Your task to perform on an android device: choose inbox layout in the gmail app Image 0: 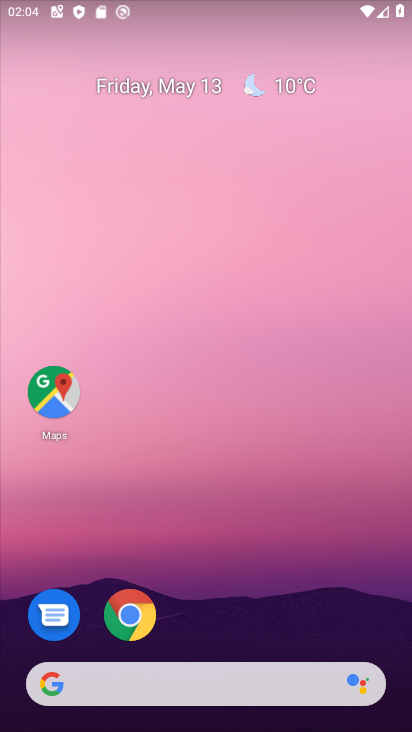
Step 0: drag from (197, 613) to (78, 69)
Your task to perform on an android device: choose inbox layout in the gmail app Image 1: 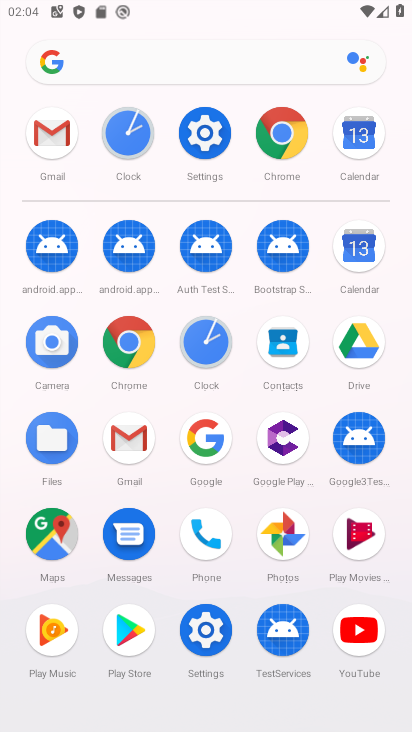
Step 1: click (53, 157)
Your task to perform on an android device: choose inbox layout in the gmail app Image 2: 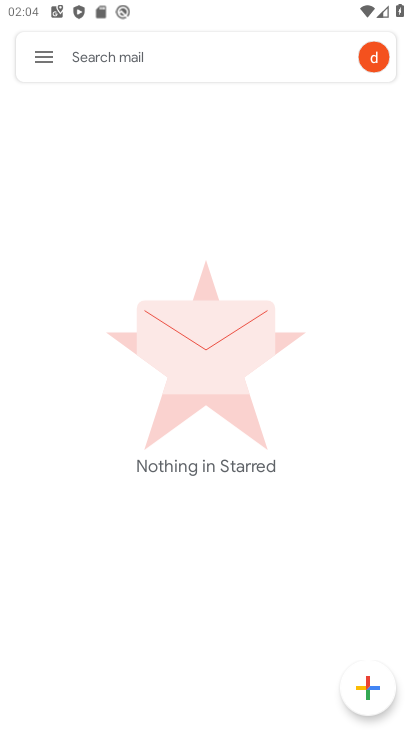
Step 2: click (41, 63)
Your task to perform on an android device: choose inbox layout in the gmail app Image 3: 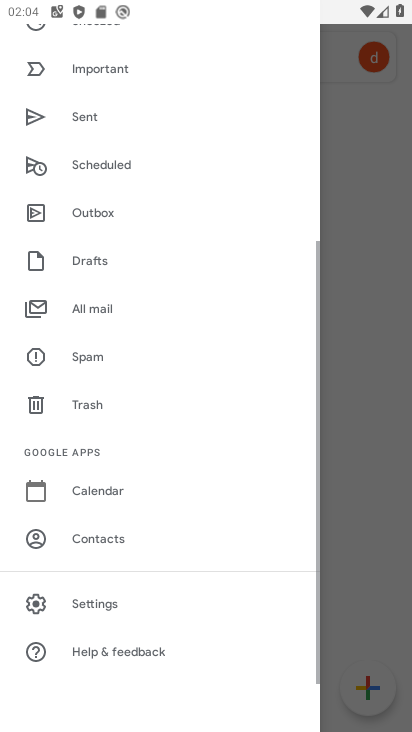
Step 3: drag from (72, 63) to (96, 584)
Your task to perform on an android device: choose inbox layout in the gmail app Image 4: 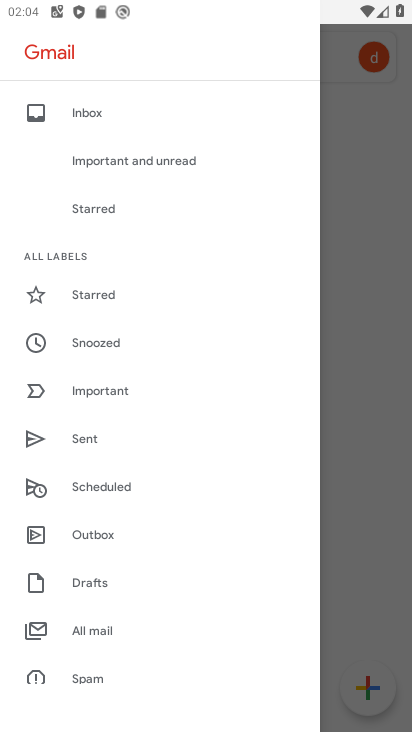
Step 4: click (85, 111)
Your task to perform on an android device: choose inbox layout in the gmail app Image 5: 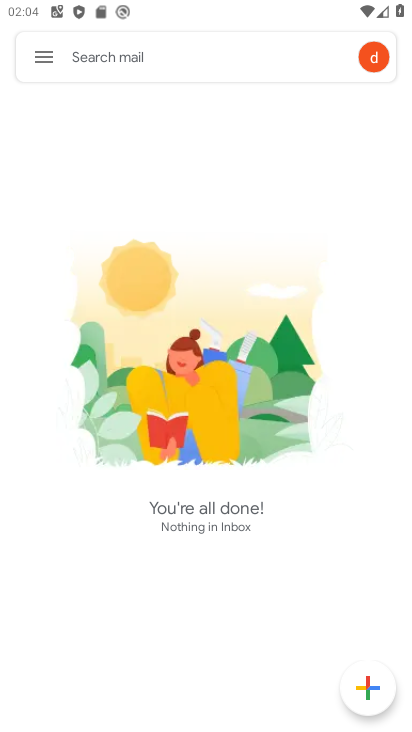
Step 5: task complete